Your task to perform on an android device: move an email to a new category in the gmail app Image 0: 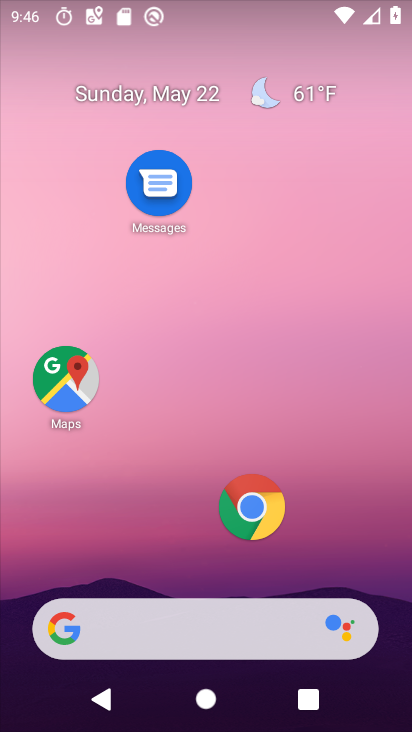
Step 0: drag from (151, 527) to (228, 148)
Your task to perform on an android device: move an email to a new category in the gmail app Image 1: 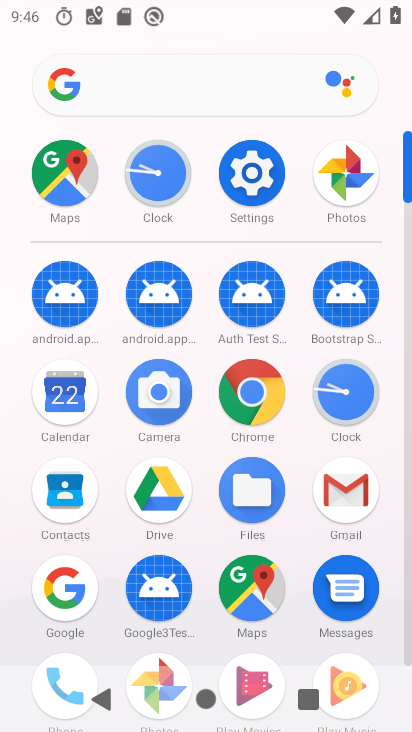
Step 1: click (347, 507)
Your task to perform on an android device: move an email to a new category in the gmail app Image 2: 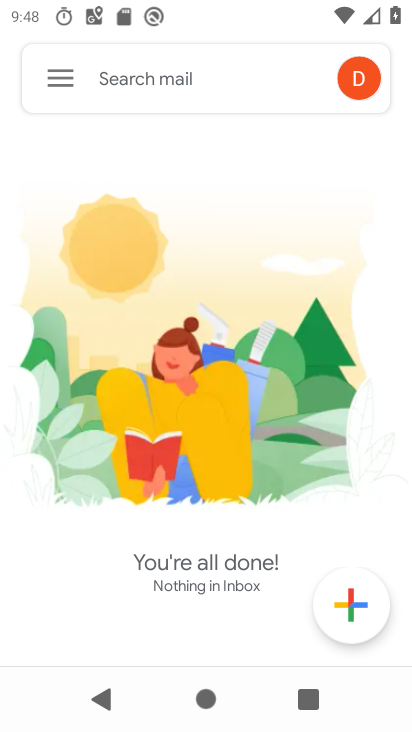
Step 2: task complete